Your task to perform on an android device: find snoozed emails in the gmail app Image 0: 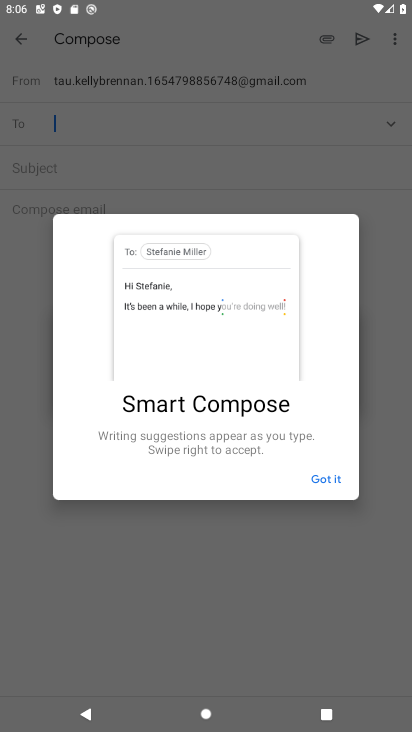
Step 0: press home button
Your task to perform on an android device: find snoozed emails in the gmail app Image 1: 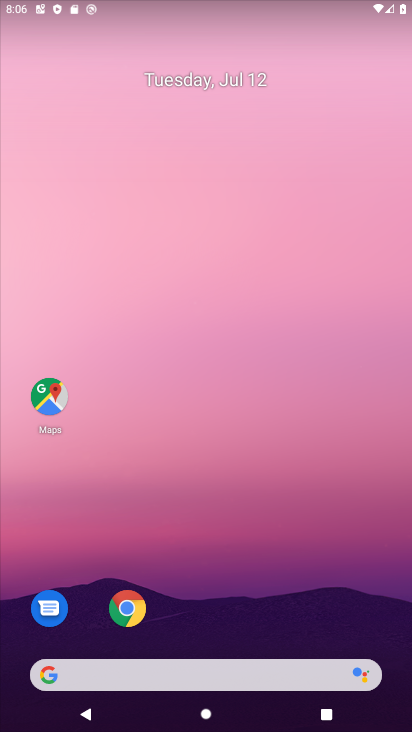
Step 1: click (232, 192)
Your task to perform on an android device: find snoozed emails in the gmail app Image 2: 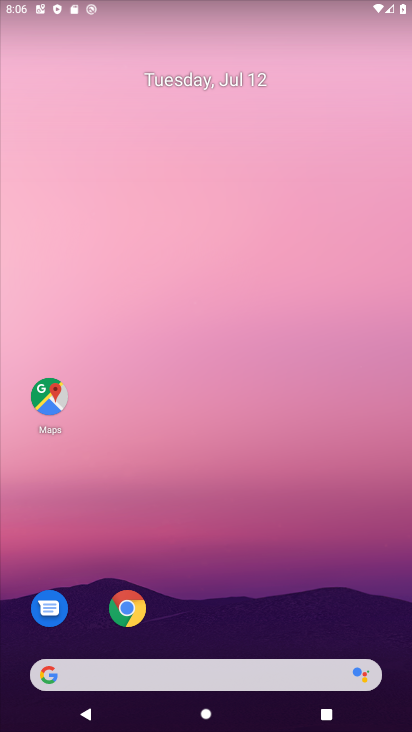
Step 2: drag from (224, 638) to (265, 24)
Your task to perform on an android device: find snoozed emails in the gmail app Image 3: 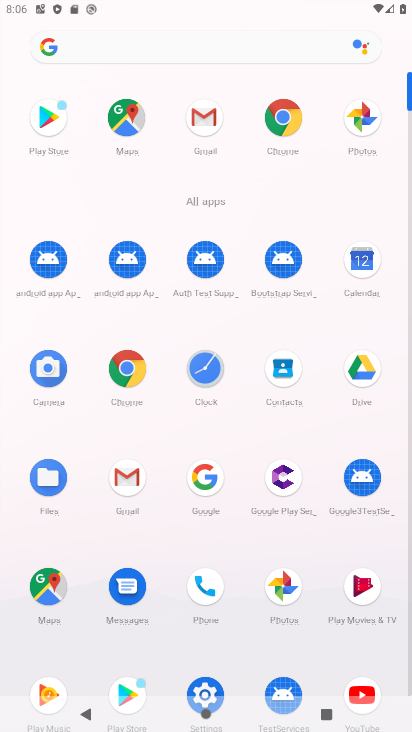
Step 3: click (195, 118)
Your task to perform on an android device: find snoozed emails in the gmail app Image 4: 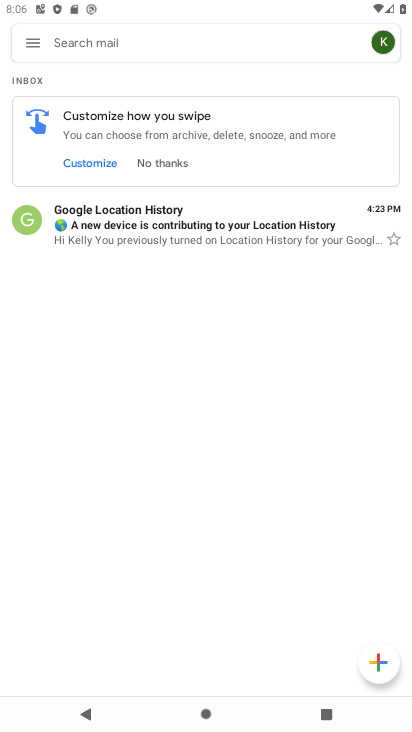
Step 4: click (36, 42)
Your task to perform on an android device: find snoozed emails in the gmail app Image 5: 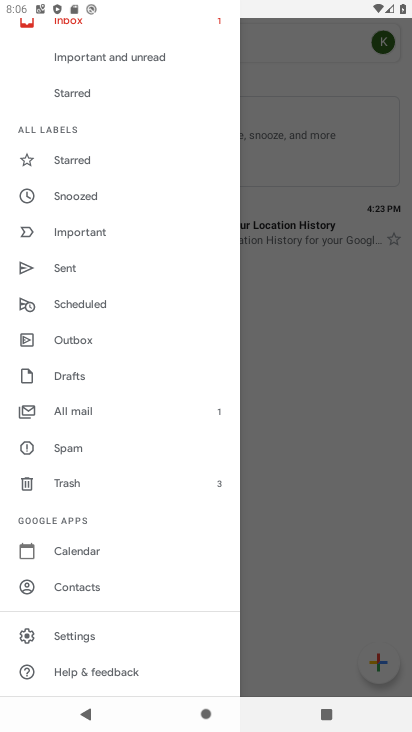
Step 5: click (67, 205)
Your task to perform on an android device: find snoozed emails in the gmail app Image 6: 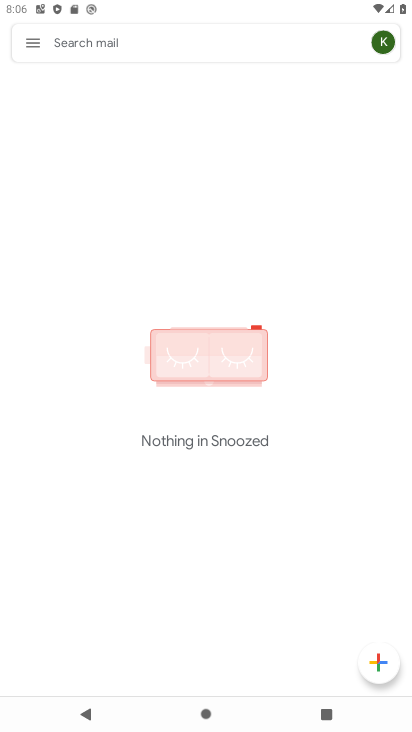
Step 6: task complete